Your task to perform on an android device: find which apps use the phone's location Image 0: 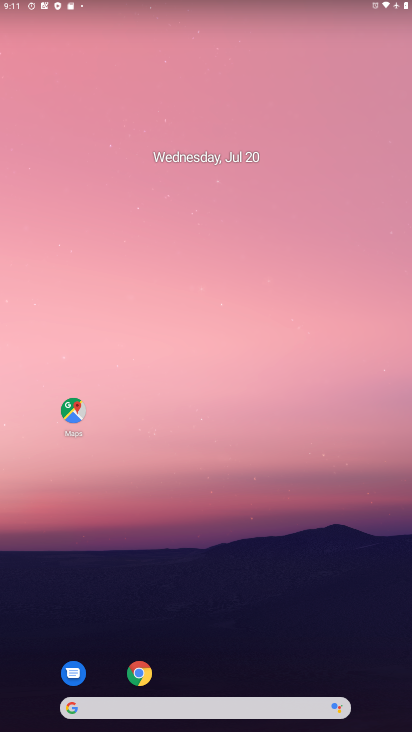
Step 0: drag from (192, 683) to (180, 106)
Your task to perform on an android device: find which apps use the phone's location Image 1: 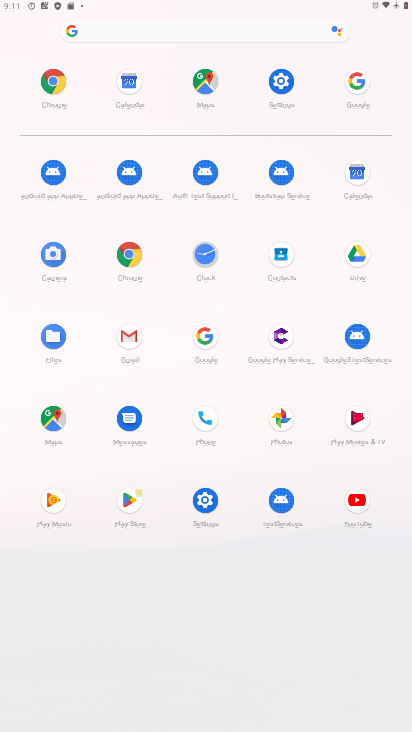
Step 1: click (284, 78)
Your task to perform on an android device: find which apps use the phone's location Image 2: 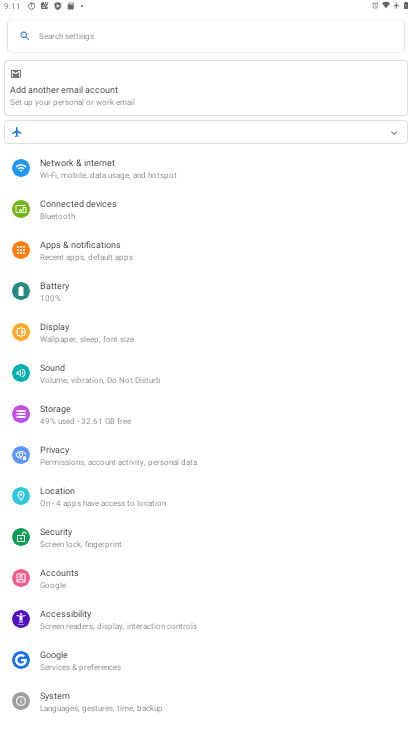
Step 2: click (94, 490)
Your task to perform on an android device: find which apps use the phone's location Image 3: 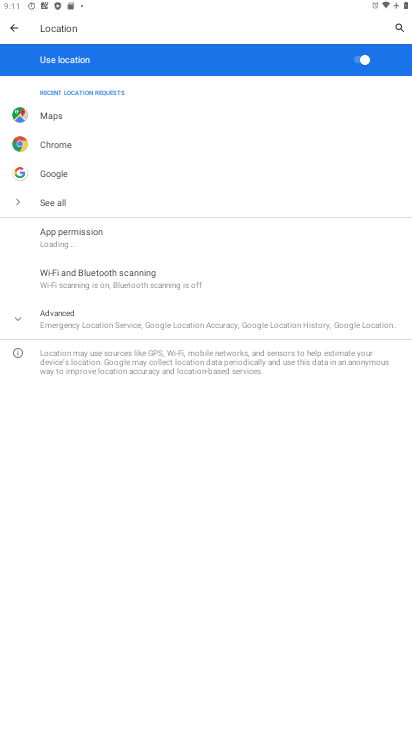
Step 3: click (78, 235)
Your task to perform on an android device: find which apps use the phone's location Image 4: 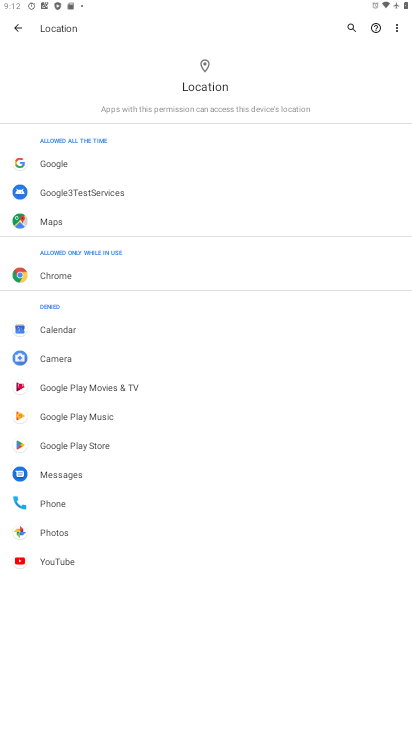
Step 4: task complete